Your task to perform on an android device: Open the stopwatch Image 0: 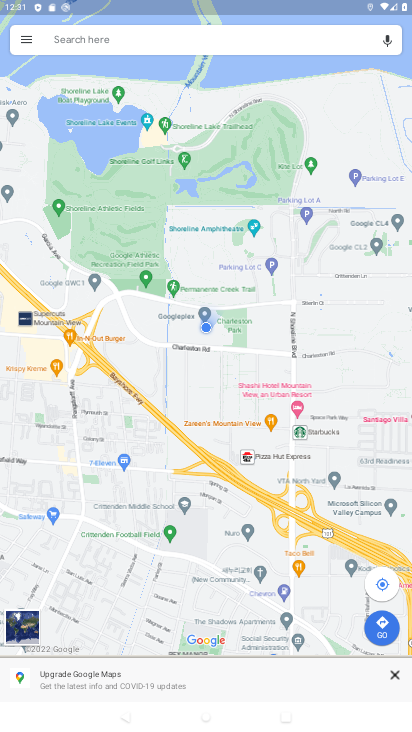
Step 0: press home button
Your task to perform on an android device: Open the stopwatch Image 1: 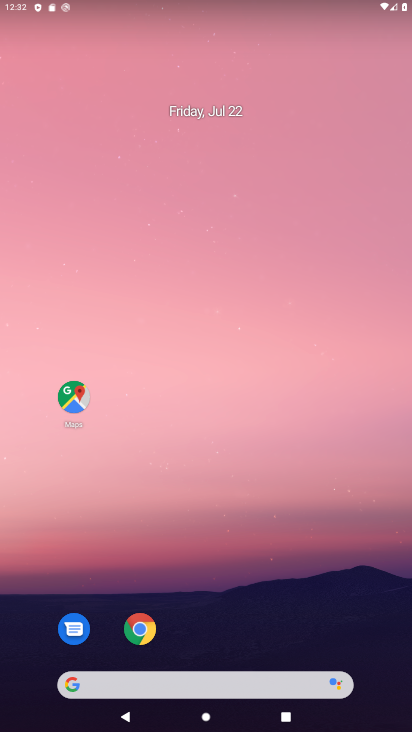
Step 1: drag from (231, 590) to (264, 81)
Your task to perform on an android device: Open the stopwatch Image 2: 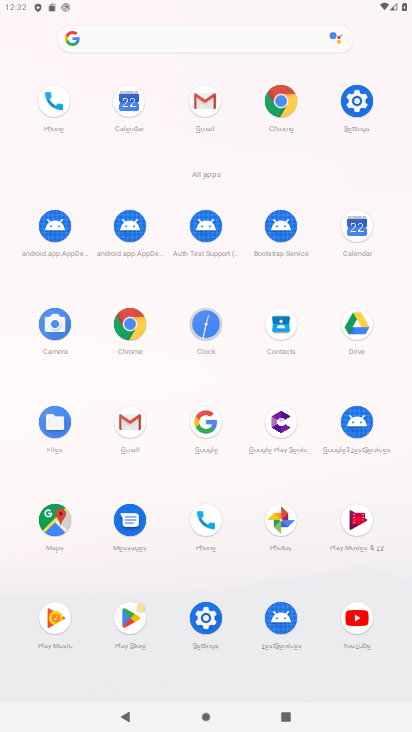
Step 2: click (203, 327)
Your task to perform on an android device: Open the stopwatch Image 3: 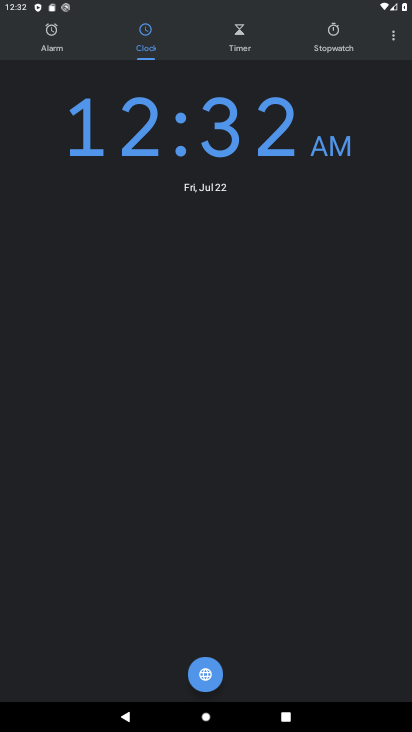
Step 3: click (333, 35)
Your task to perform on an android device: Open the stopwatch Image 4: 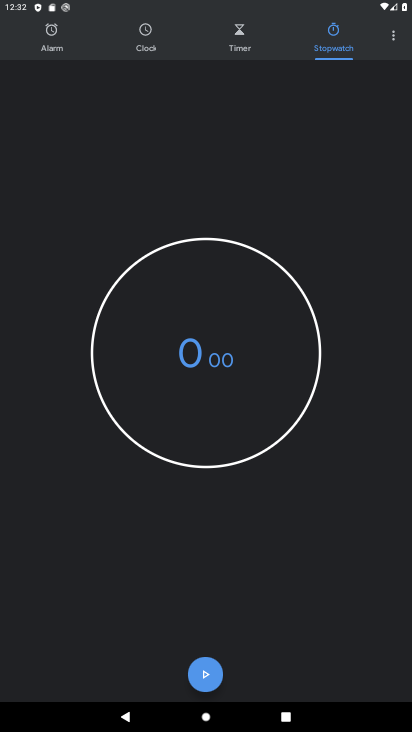
Step 4: click (210, 676)
Your task to perform on an android device: Open the stopwatch Image 5: 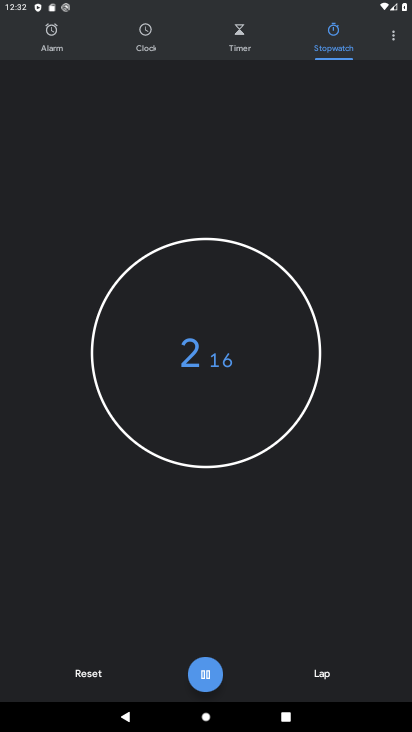
Step 5: click (210, 676)
Your task to perform on an android device: Open the stopwatch Image 6: 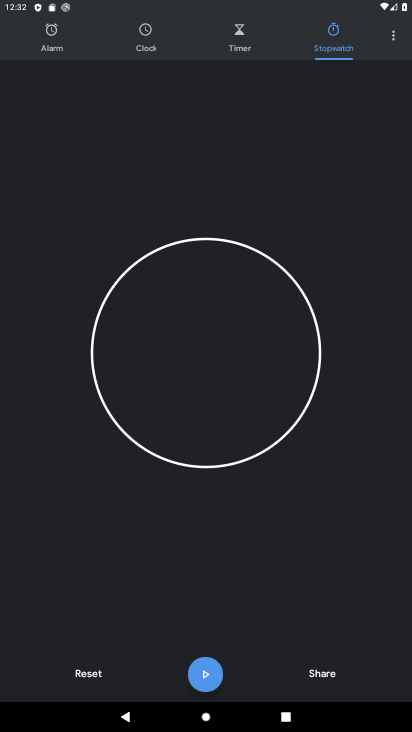
Step 6: task complete